Your task to perform on an android device: Open Google Maps and go to "Timeline" Image 0: 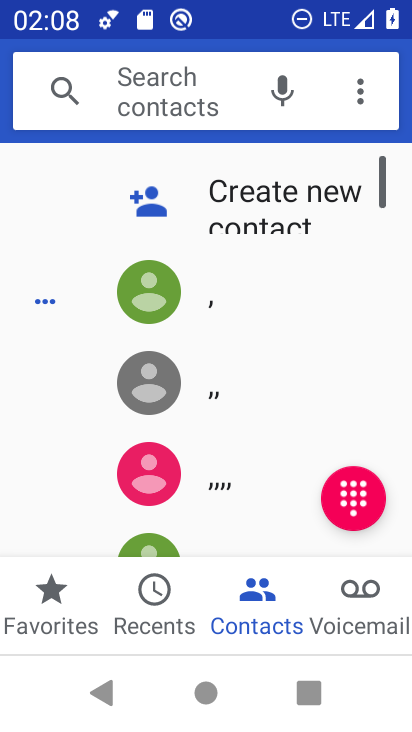
Step 0: press home button
Your task to perform on an android device: Open Google Maps and go to "Timeline" Image 1: 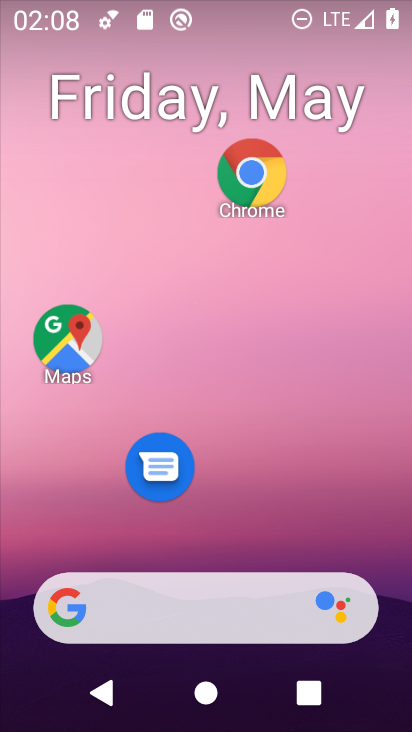
Step 1: drag from (249, 667) to (278, 200)
Your task to perform on an android device: Open Google Maps and go to "Timeline" Image 2: 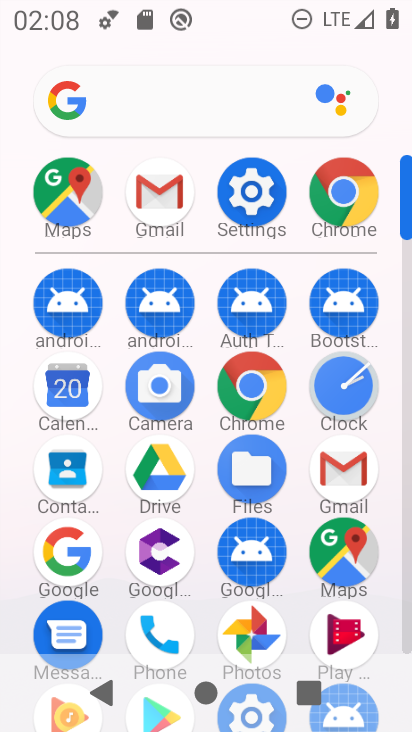
Step 2: click (60, 205)
Your task to perform on an android device: Open Google Maps and go to "Timeline" Image 3: 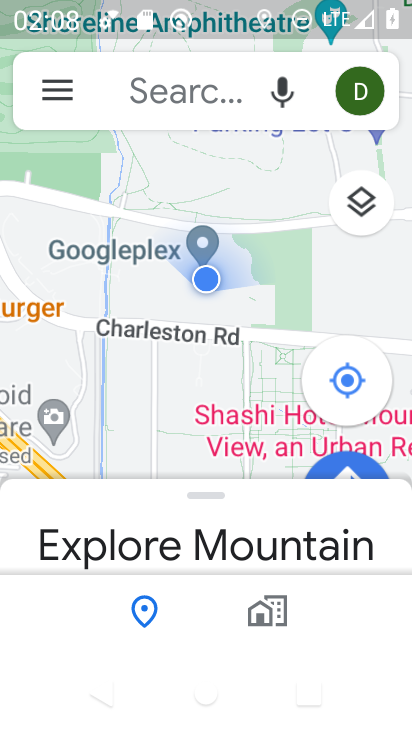
Step 3: click (40, 89)
Your task to perform on an android device: Open Google Maps and go to "Timeline" Image 4: 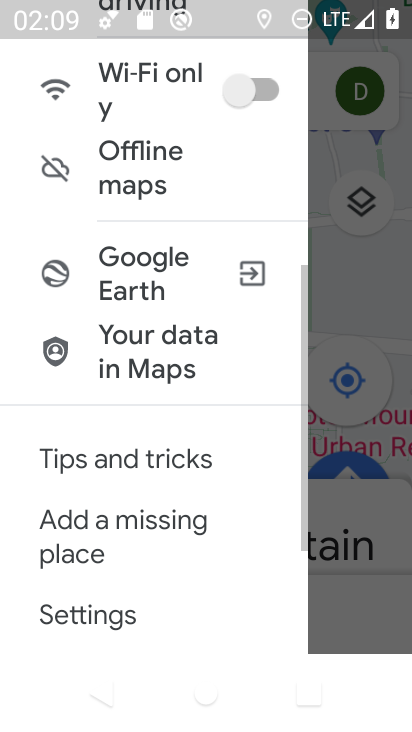
Step 4: drag from (169, 196) to (230, 456)
Your task to perform on an android device: Open Google Maps and go to "Timeline" Image 5: 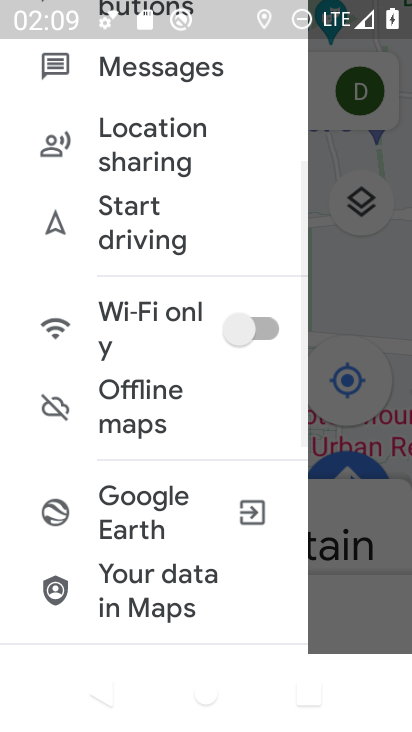
Step 5: drag from (159, 161) to (215, 415)
Your task to perform on an android device: Open Google Maps and go to "Timeline" Image 6: 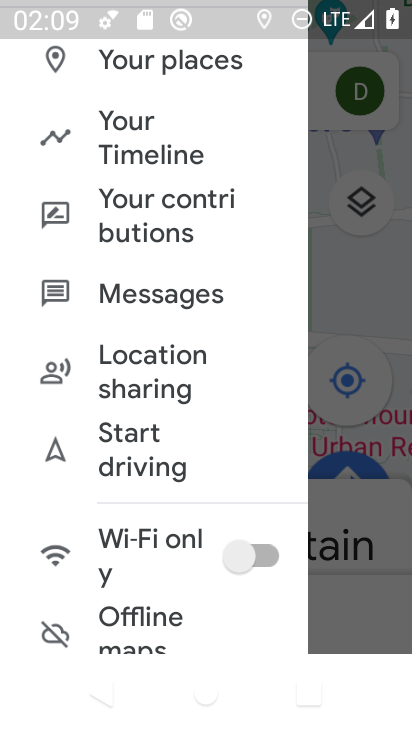
Step 6: drag from (175, 92) to (208, 327)
Your task to perform on an android device: Open Google Maps and go to "Timeline" Image 7: 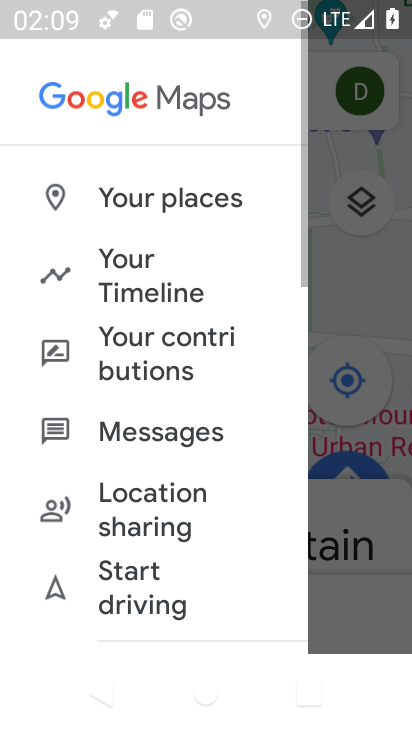
Step 7: click (173, 283)
Your task to perform on an android device: Open Google Maps and go to "Timeline" Image 8: 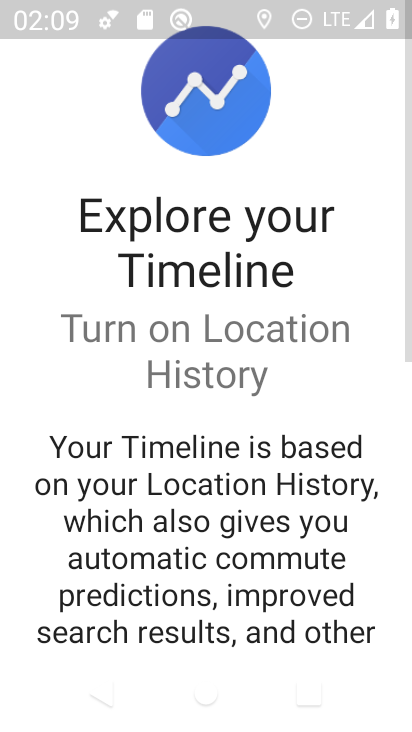
Step 8: drag from (252, 410) to (298, 83)
Your task to perform on an android device: Open Google Maps and go to "Timeline" Image 9: 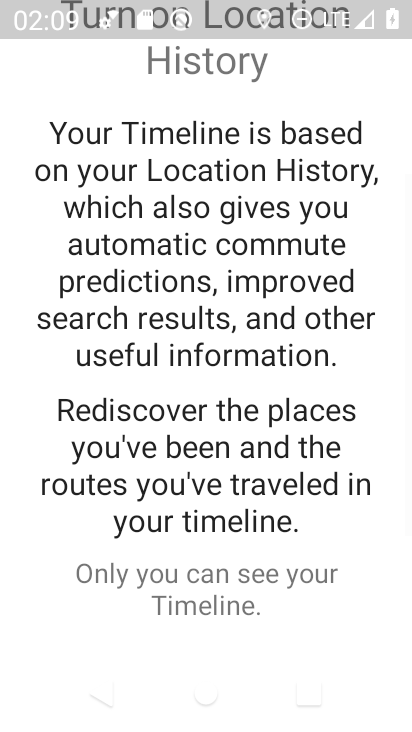
Step 9: drag from (260, 457) to (256, 158)
Your task to perform on an android device: Open Google Maps and go to "Timeline" Image 10: 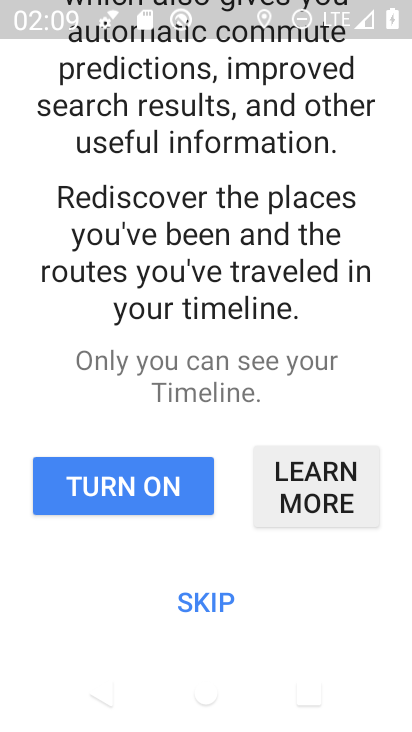
Step 10: click (220, 587)
Your task to perform on an android device: Open Google Maps and go to "Timeline" Image 11: 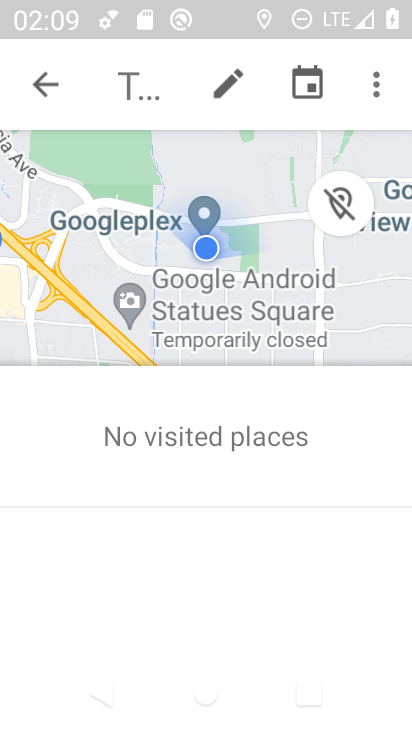
Step 11: task complete